Your task to perform on an android device: allow cookies in the chrome app Image 0: 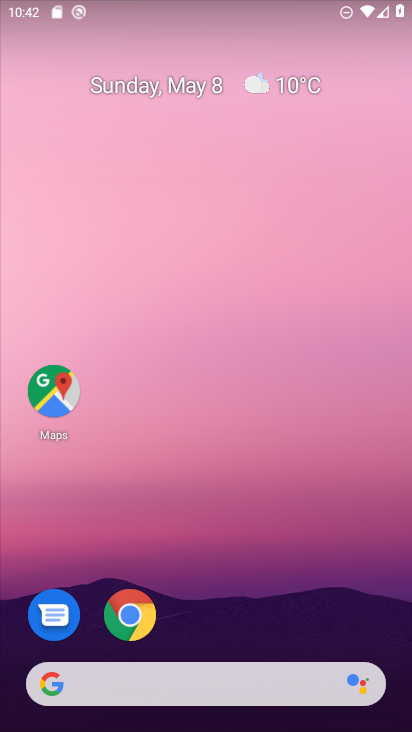
Step 0: click (125, 618)
Your task to perform on an android device: allow cookies in the chrome app Image 1: 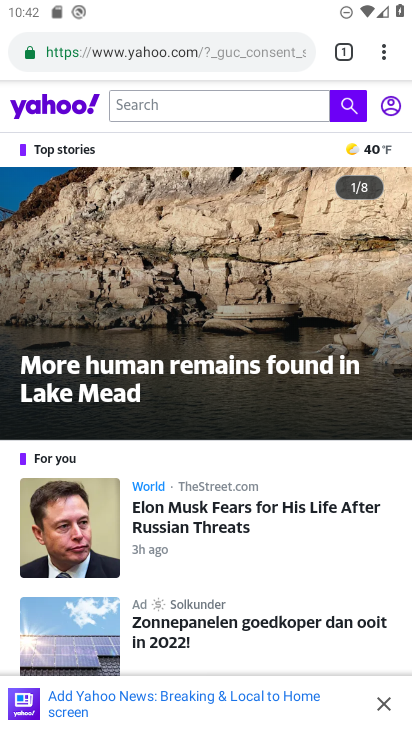
Step 1: drag from (382, 43) to (182, 630)
Your task to perform on an android device: allow cookies in the chrome app Image 2: 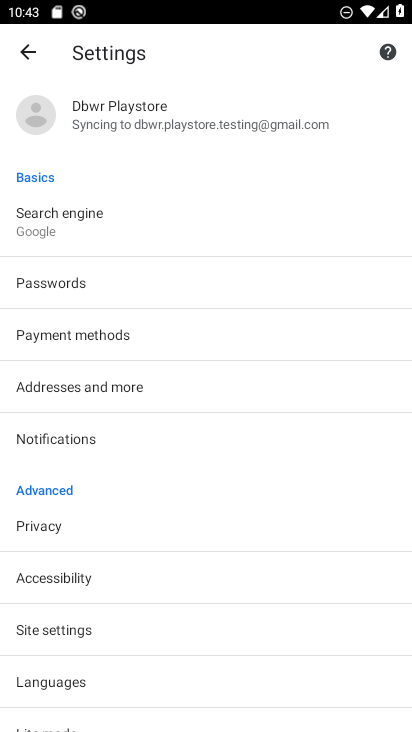
Step 2: click (32, 637)
Your task to perform on an android device: allow cookies in the chrome app Image 3: 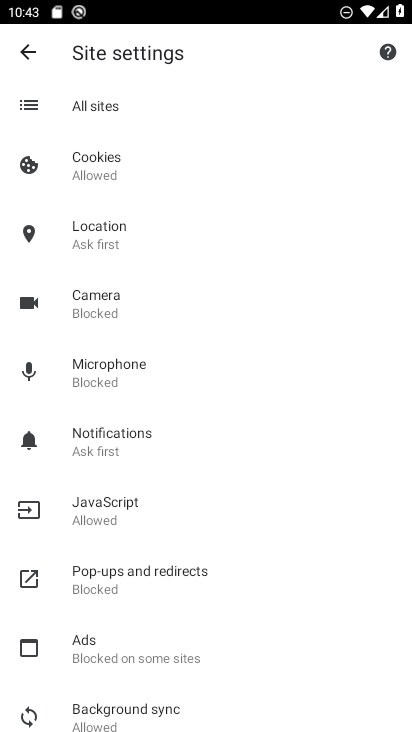
Step 3: click (92, 147)
Your task to perform on an android device: allow cookies in the chrome app Image 4: 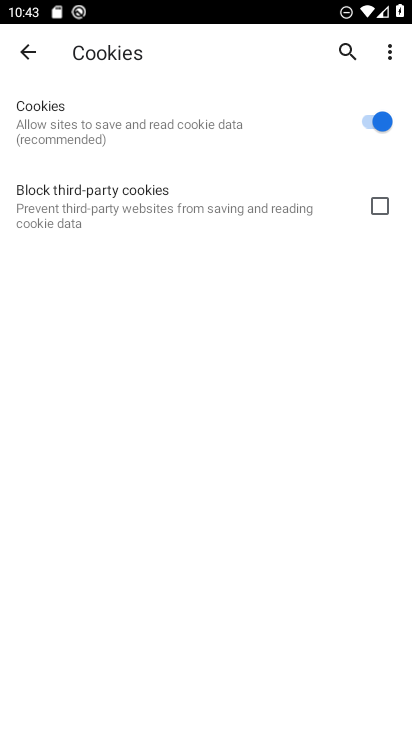
Step 4: task complete